Your task to perform on an android device: What's the weather going to be tomorrow? Image 0: 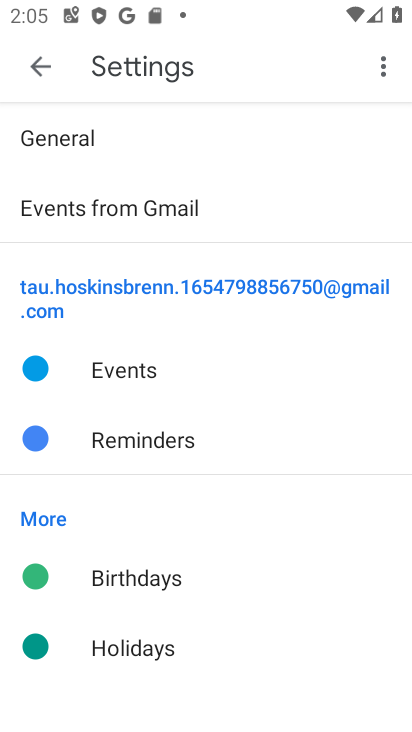
Step 0: press home button
Your task to perform on an android device: What's the weather going to be tomorrow? Image 1: 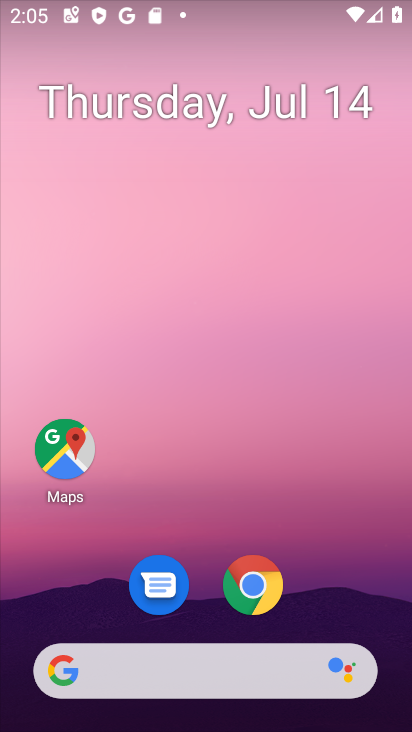
Step 1: click (231, 681)
Your task to perform on an android device: What's the weather going to be tomorrow? Image 2: 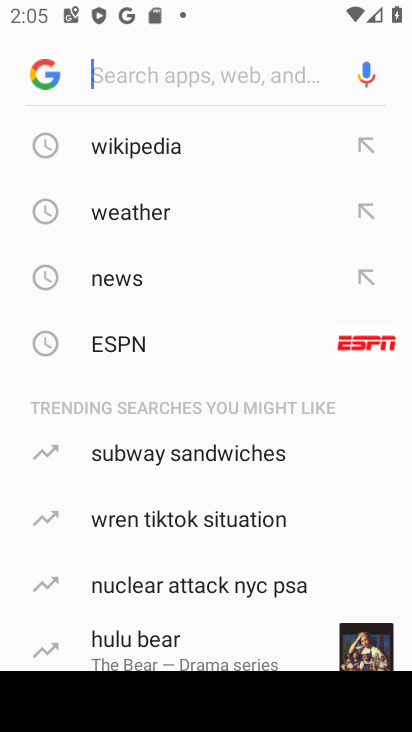
Step 2: click (145, 207)
Your task to perform on an android device: What's the weather going to be tomorrow? Image 3: 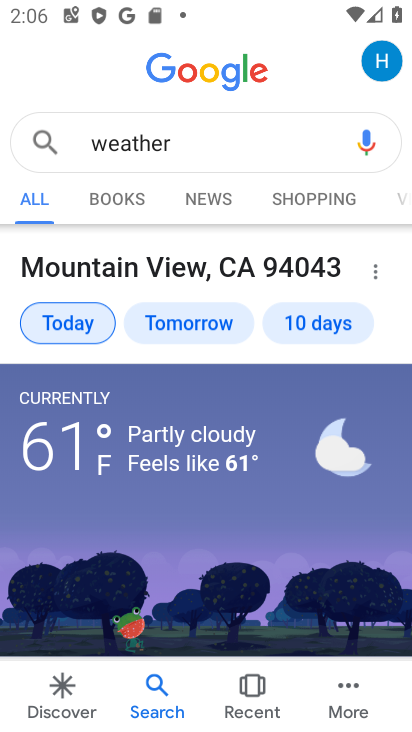
Step 3: click (86, 320)
Your task to perform on an android device: What's the weather going to be tomorrow? Image 4: 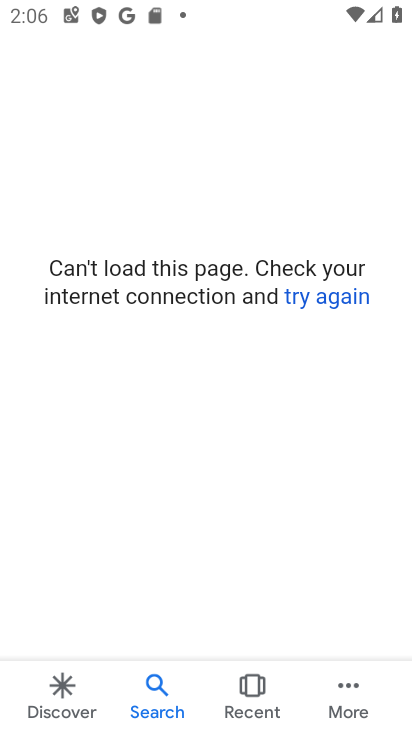
Step 4: click (329, 291)
Your task to perform on an android device: What's the weather going to be tomorrow? Image 5: 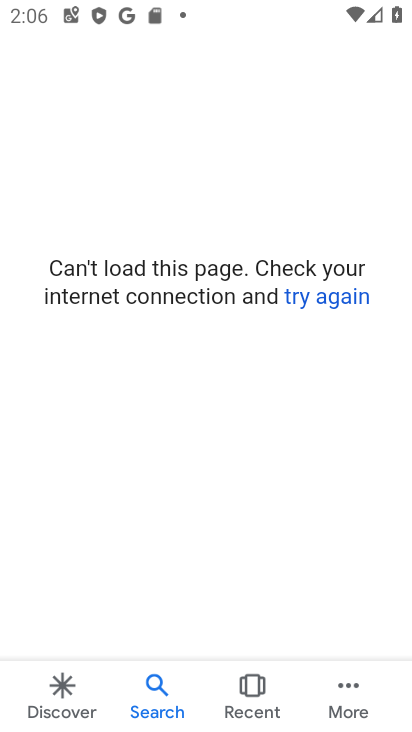
Step 5: click (329, 291)
Your task to perform on an android device: What's the weather going to be tomorrow? Image 6: 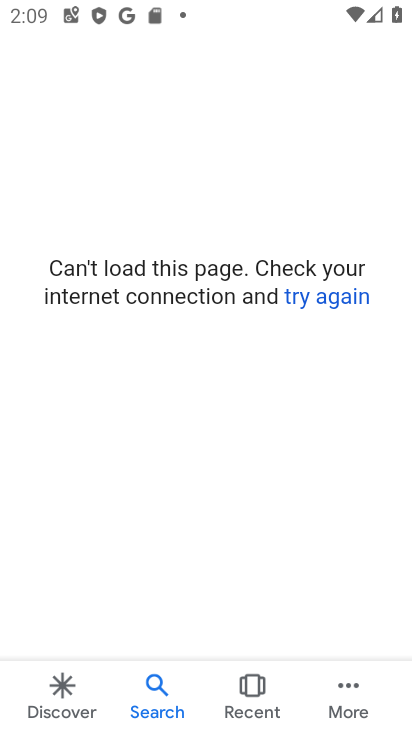
Step 6: task complete